Your task to perform on an android device: Check the weather Image 0: 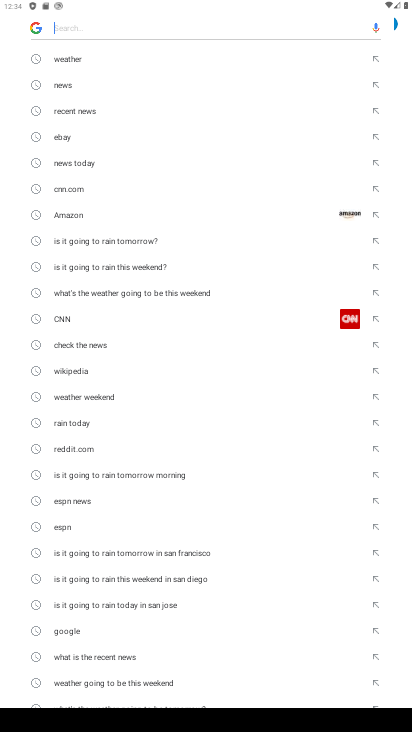
Step 0: click (80, 63)
Your task to perform on an android device: Check the weather Image 1: 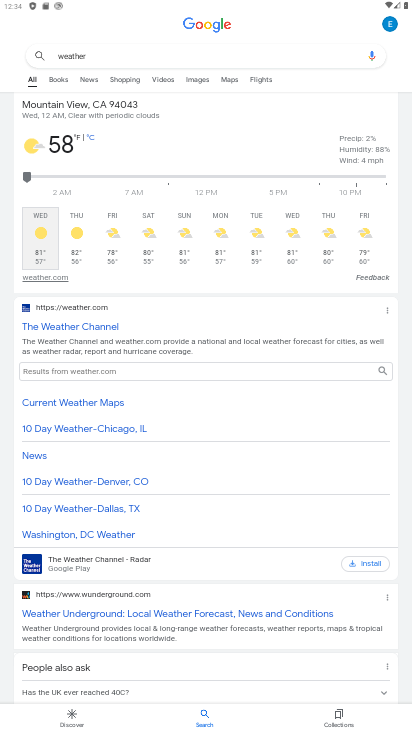
Step 1: task complete